Your task to perform on an android device: What's the news in Argentina? Image 0: 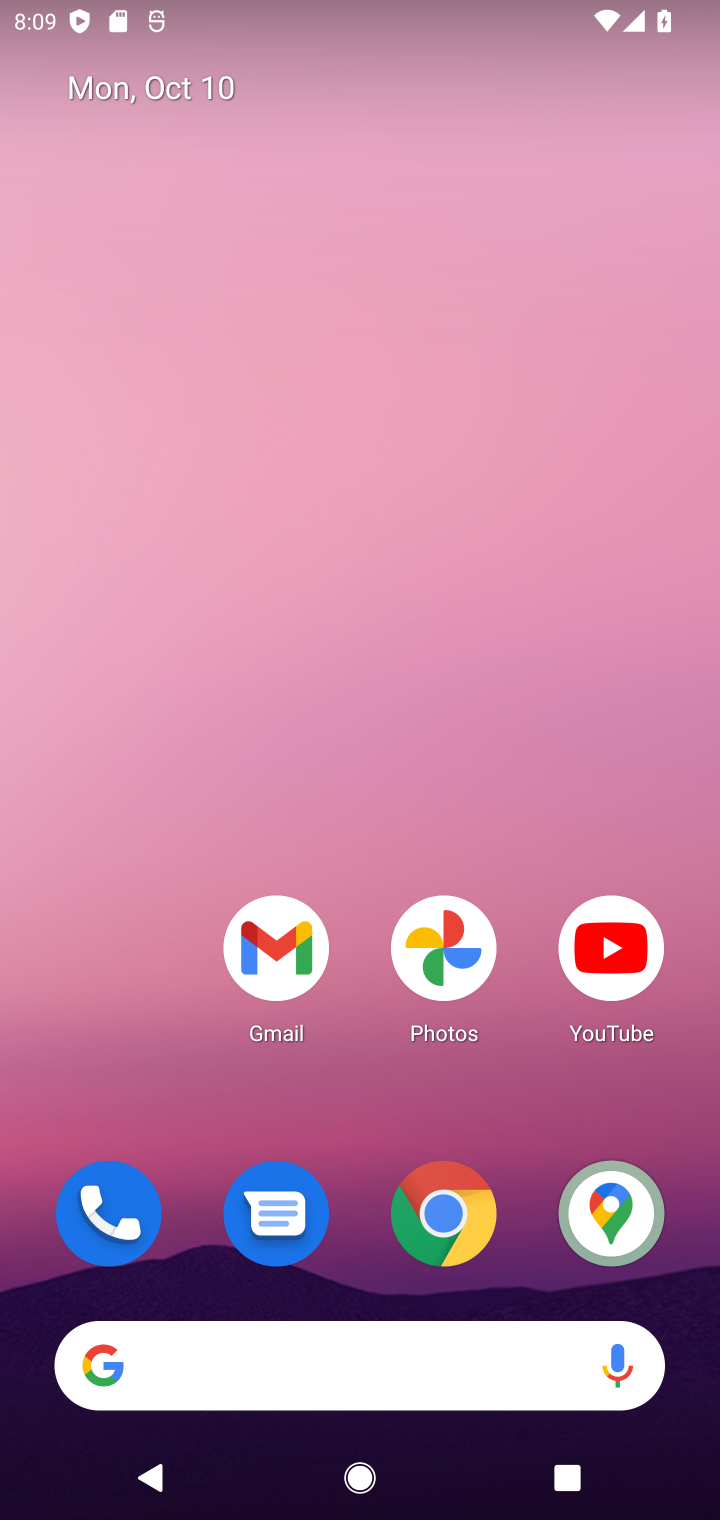
Step 0: click (249, 1381)
Your task to perform on an android device: What's the news in Argentina? Image 1: 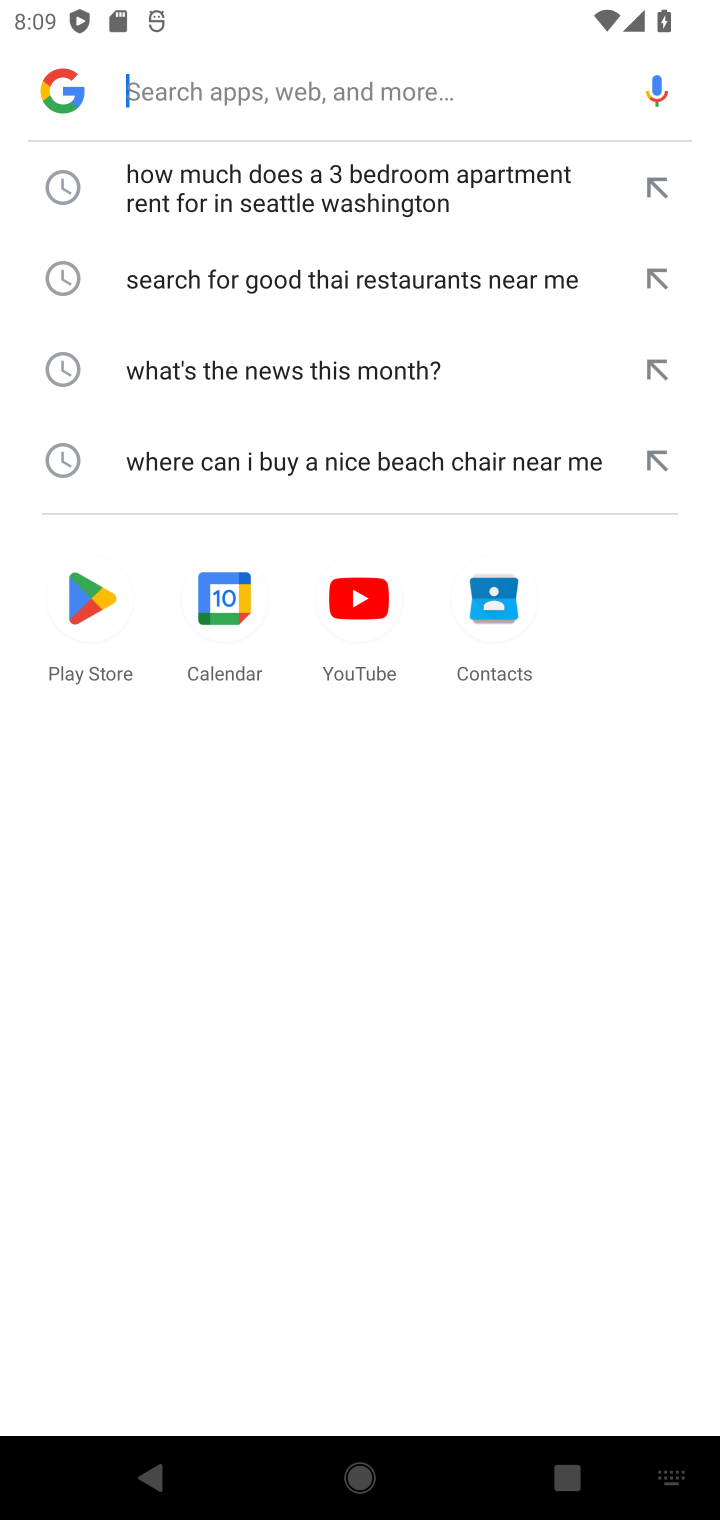
Step 1: click (261, 81)
Your task to perform on an android device: What's the news in Argentina? Image 2: 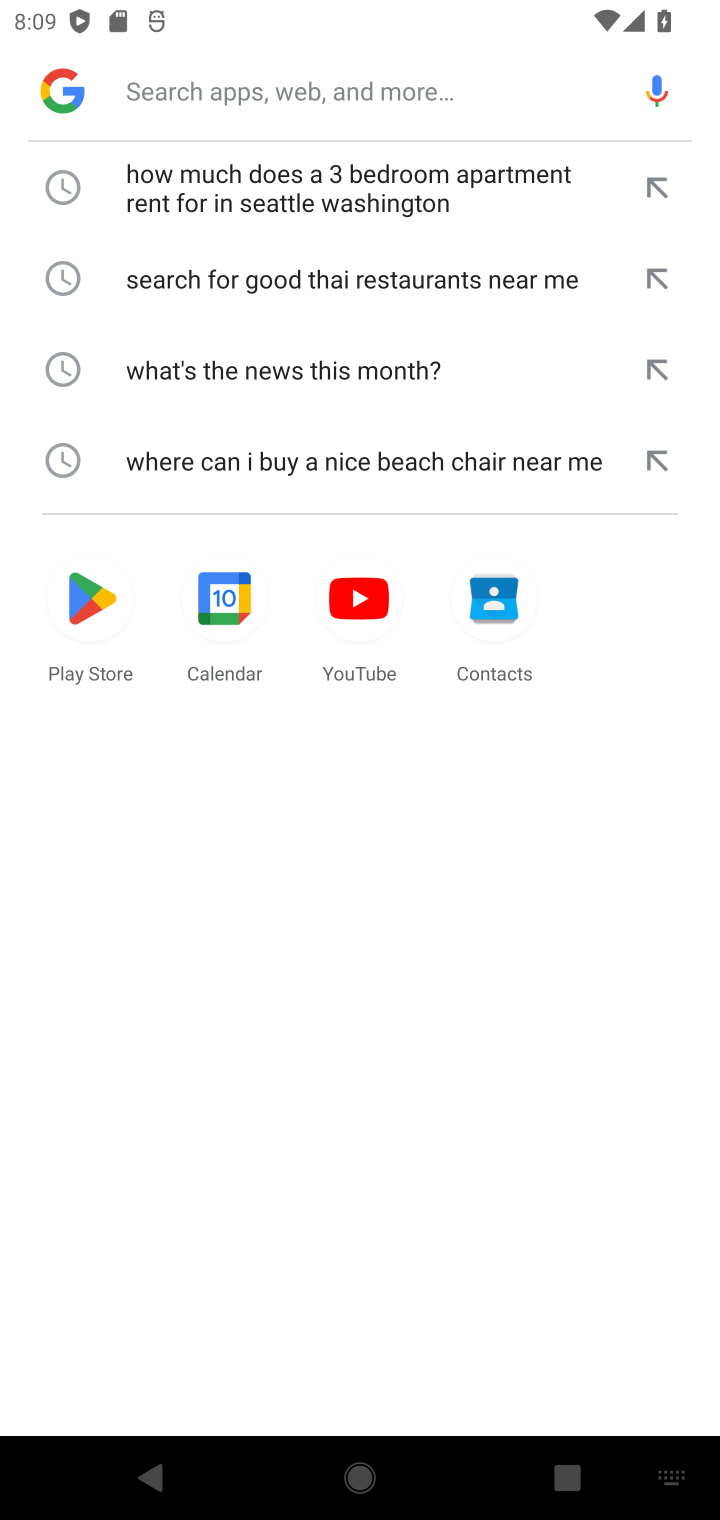
Step 2: type "What's the news in Argentina"
Your task to perform on an android device: What's the news in Argentina? Image 3: 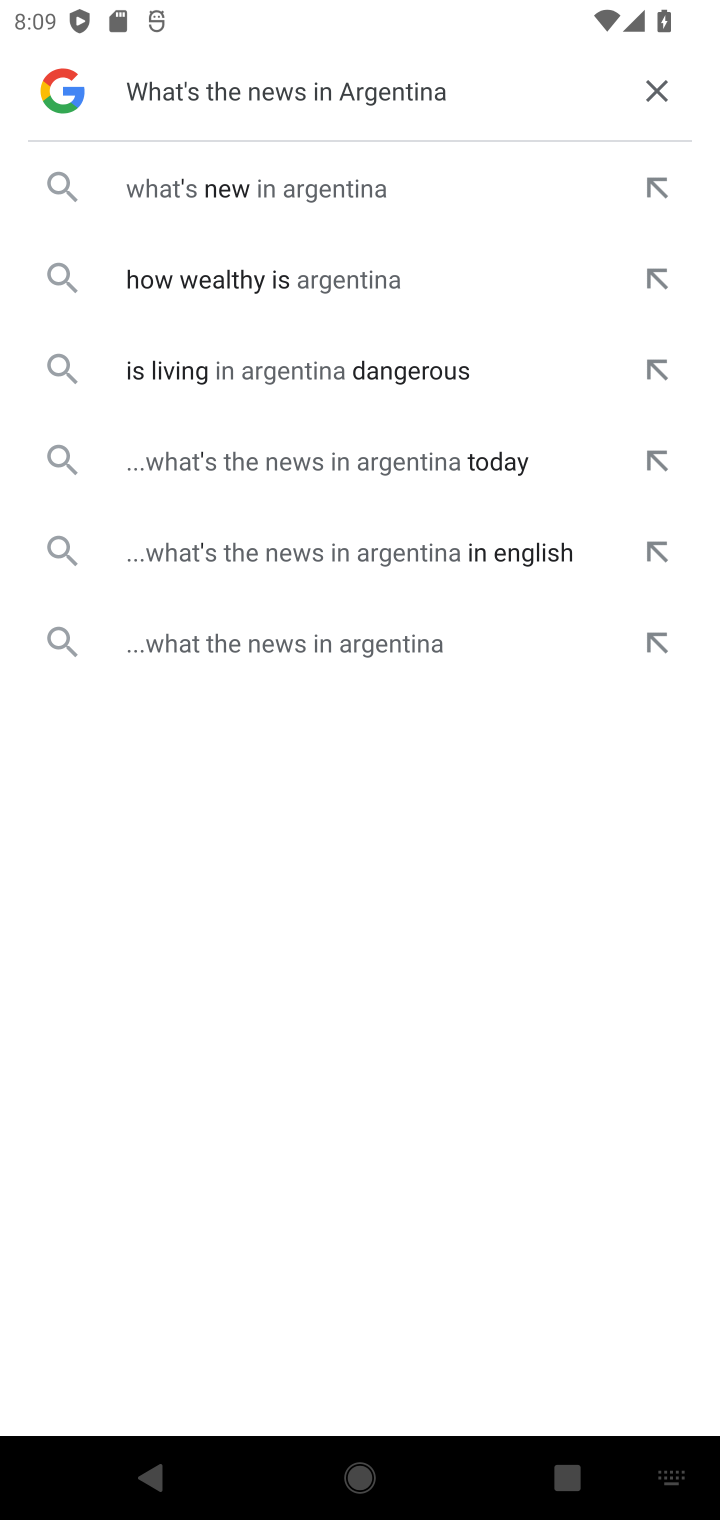
Step 3: click (192, 179)
Your task to perform on an android device: What's the news in Argentina? Image 4: 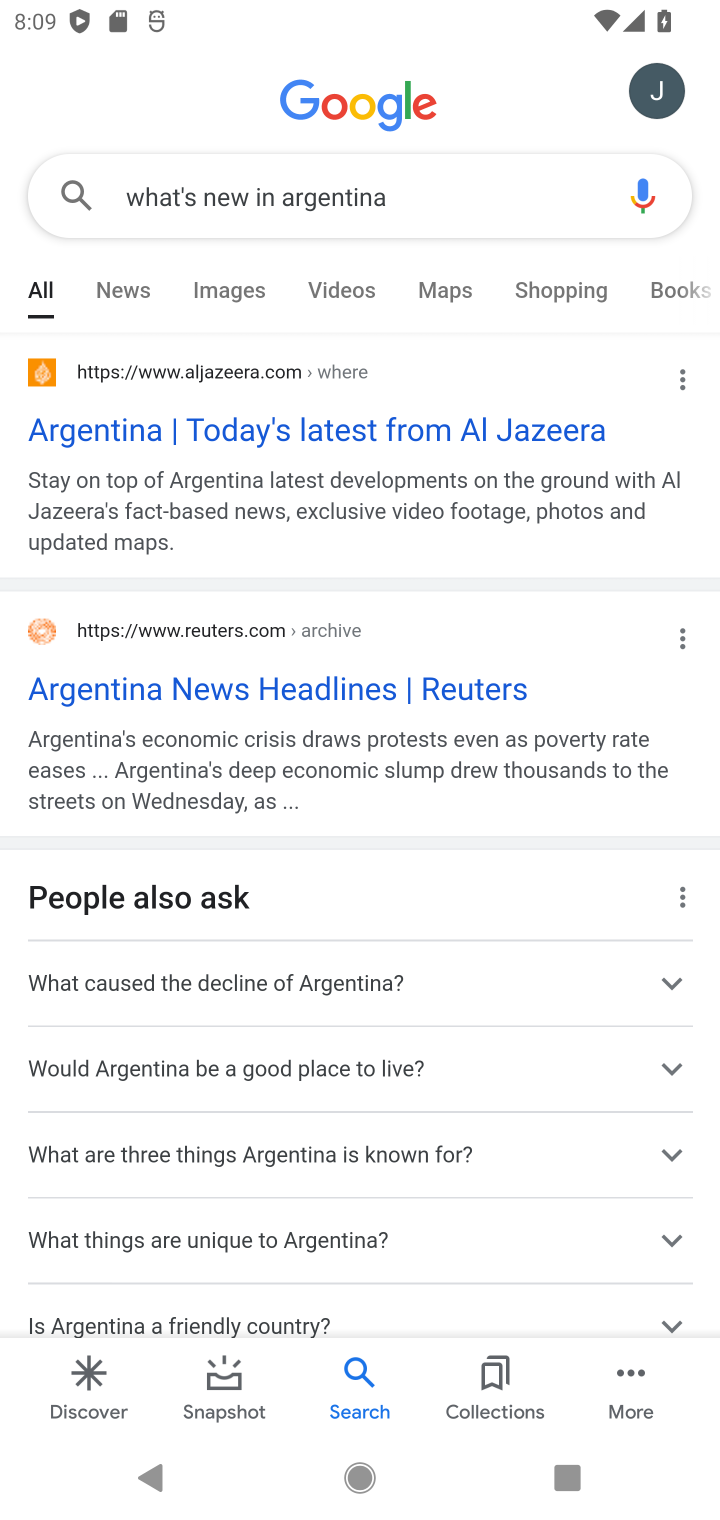
Step 4: click (272, 425)
Your task to perform on an android device: What's the news in Argentina? Image 5: 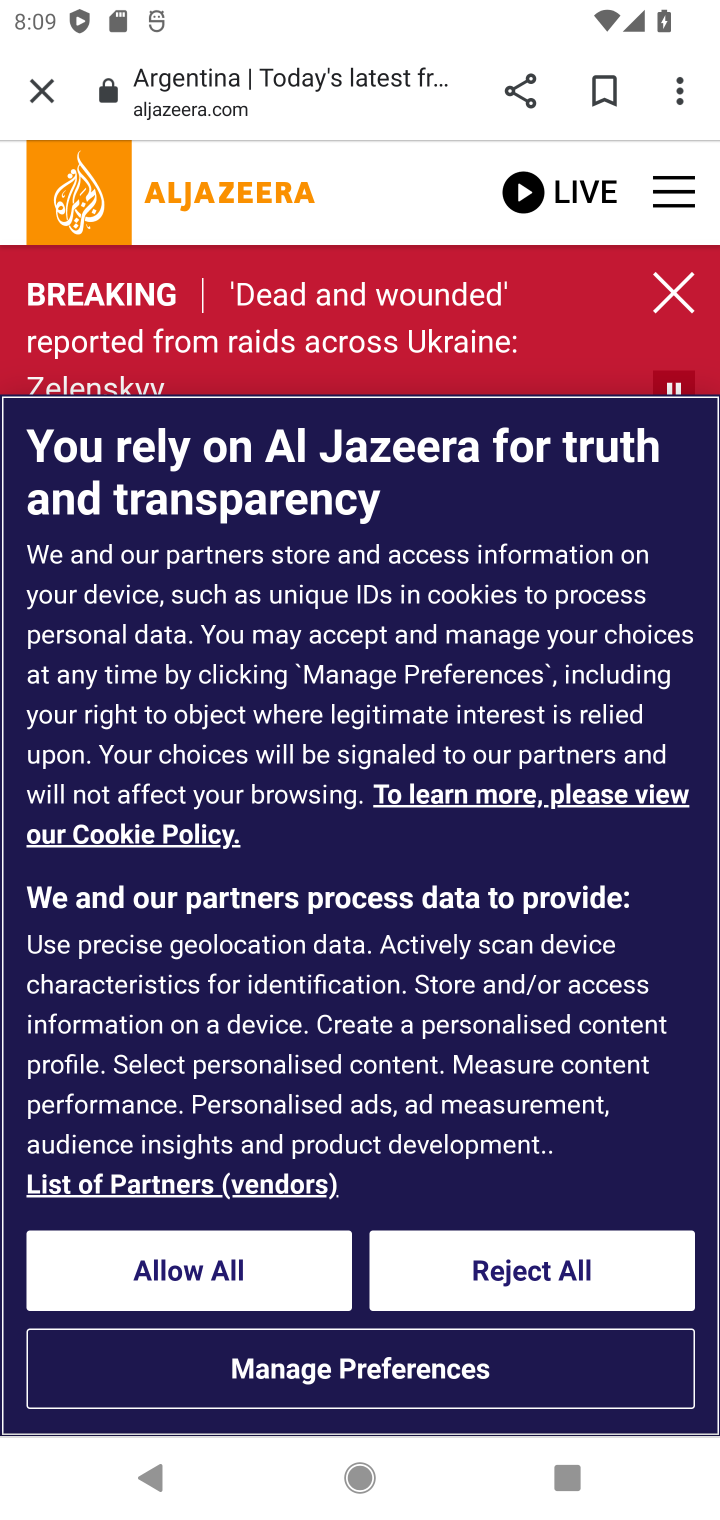
Step 5: task complete